Your task to perform on an android device: Search for Italian restaurants on Maps Image 0: 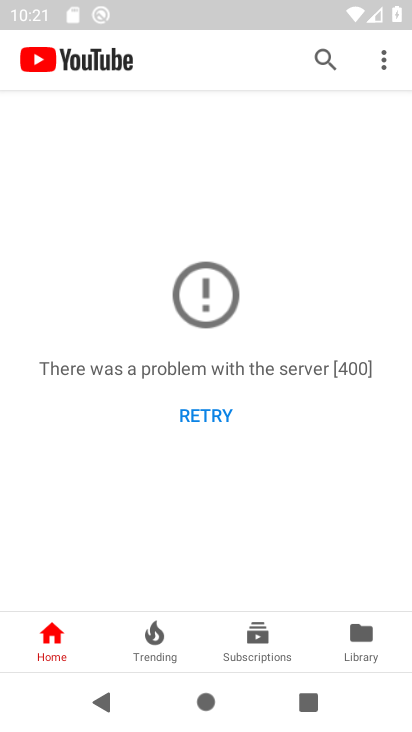
Step 0: press home button
Your task to perform on an android device: Search for Italian restaurants on Maps Image 1: 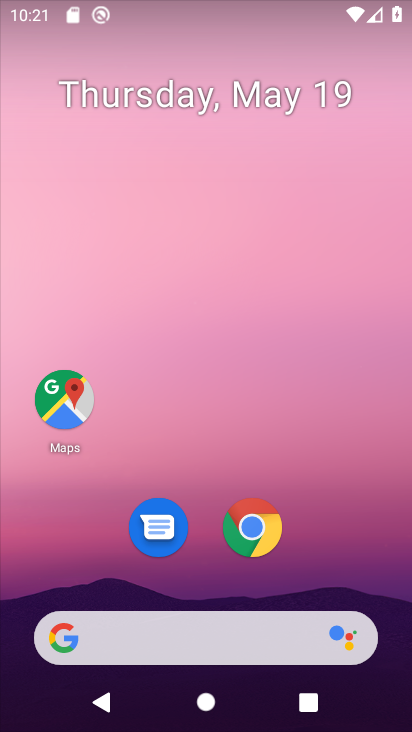
Step 1: click (67, 399)
Your task to perform on an android device: Search for Italian restaurants on Maps Image 2: 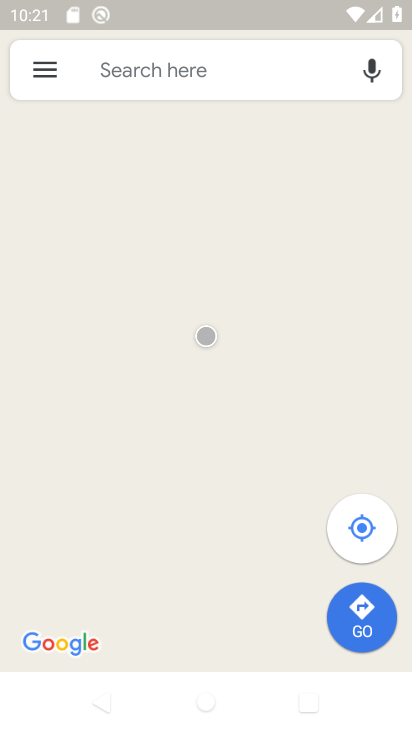
Step 2: click (138, 70)
Your task to perform on an android device: Search for Italian restaurants on Maps Image 3: 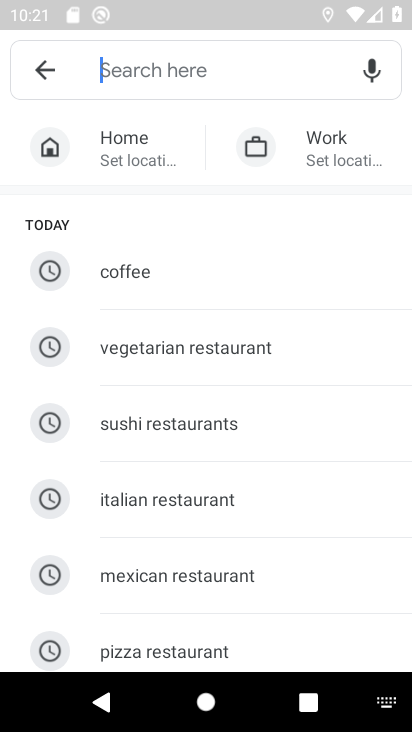
Step 3: click (169, 499)
Your task to perform on an android device: Search for Italian restaurants on Maps Image 4: 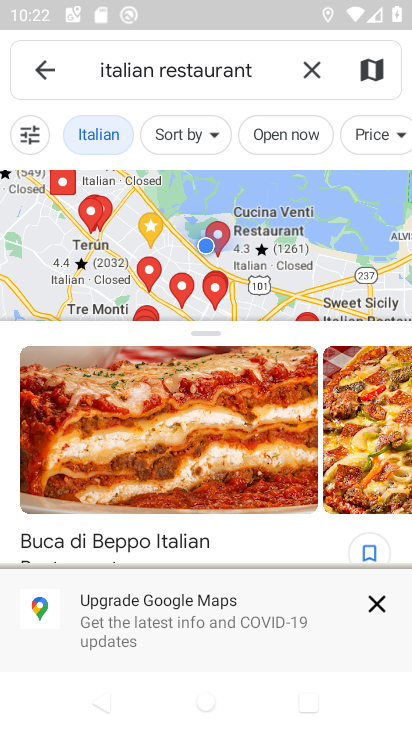
Step 4: task complete